Your task to perform on an android device: Open internet settings Image 0: 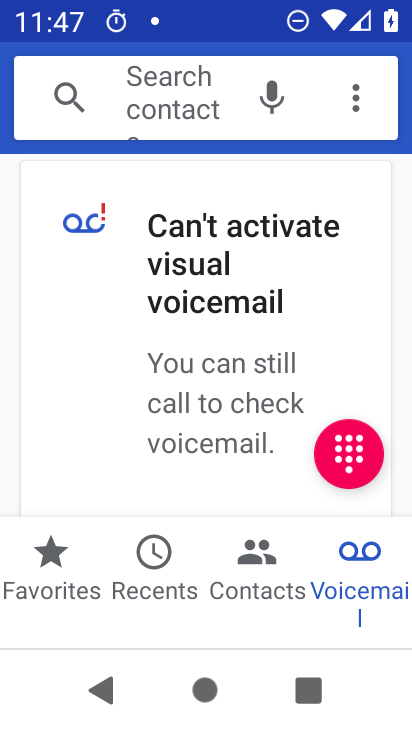
Step 0: press back button
Your task to perform on an android device: Open internet settings Image 1: 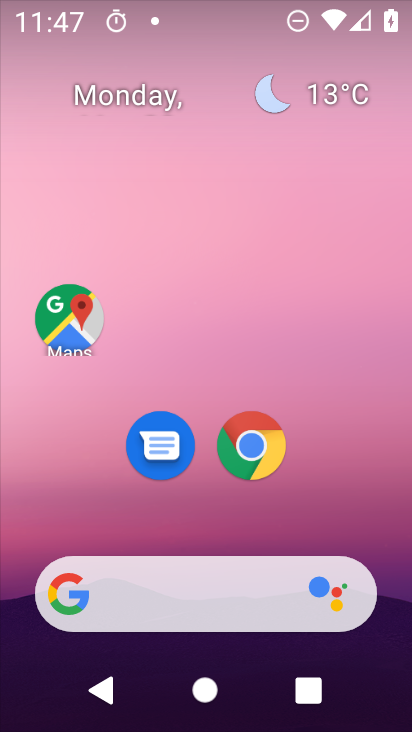
Step 1: click (253, 39)
Your task to perform on an android device: Open internet settings Image 2: 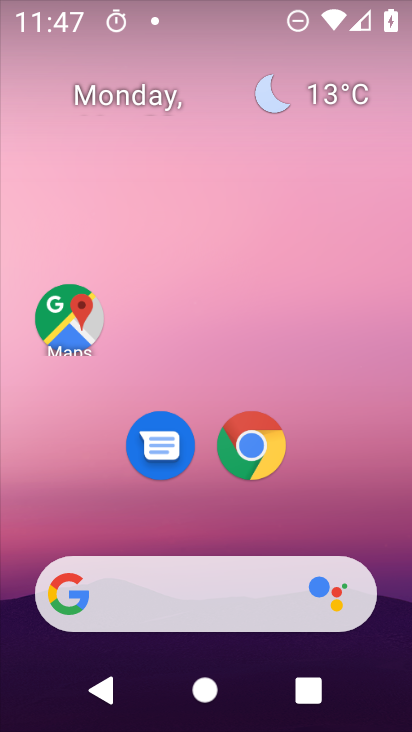
Step 2: drag from (190, 500) to (276, 19)
Your task to perform on an android device: Open internet settings Image 3: 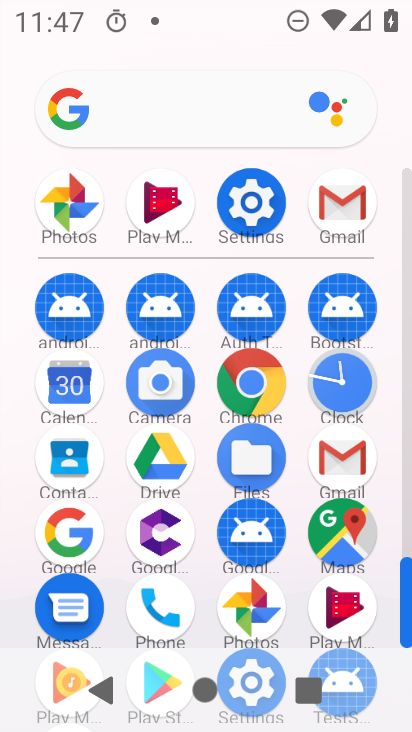
Step 3: click (249, 197)
Your task to perform on an android device: Open internet settings Image 4: 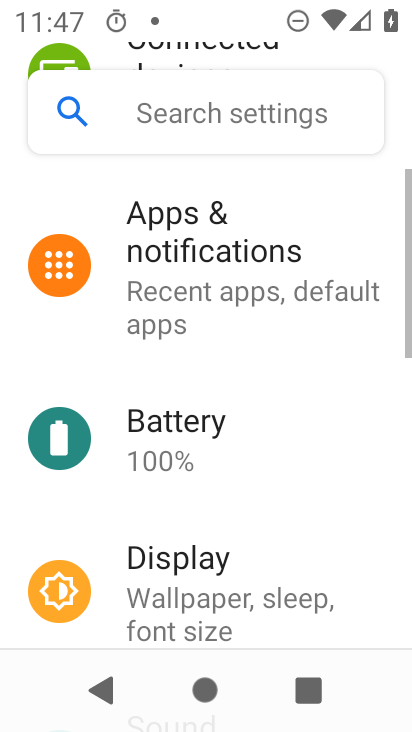
Step 4: drag from (234, 374) to (213, 610)
Your task to perform on an android device: Open internet settings Image 5: 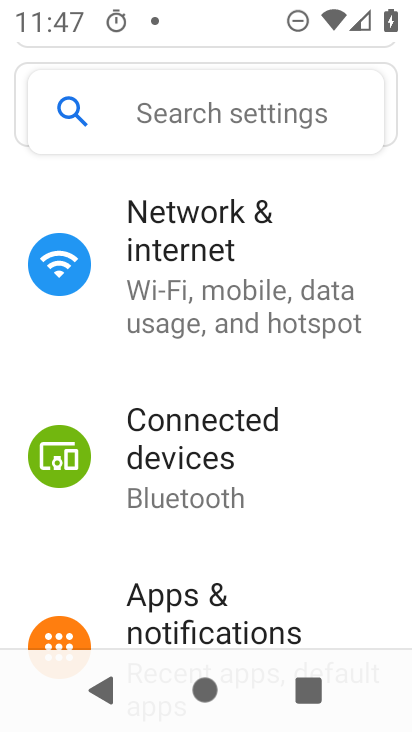
Step 5: click (199, 300)
Your task to perform on an android device: Open internet settings Image 6: 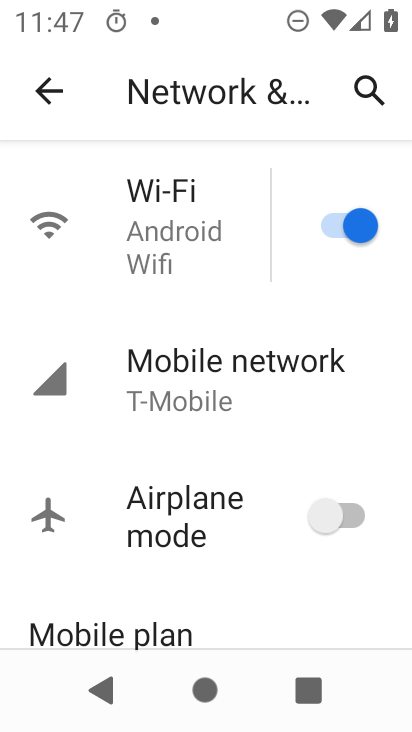
Step 6: task complete